Your task to perform on an android device: change the upload size in google photos Image 0: 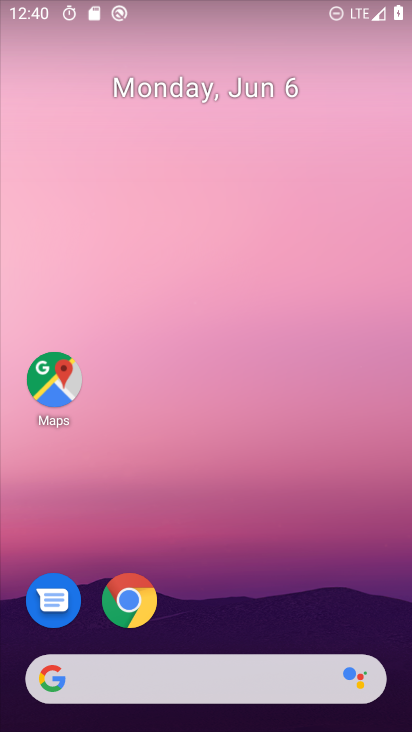
Step 0: drag from (204, 633) to (207, 376)
Your task to perform on an android device: change the upload size in google photos Image 1: 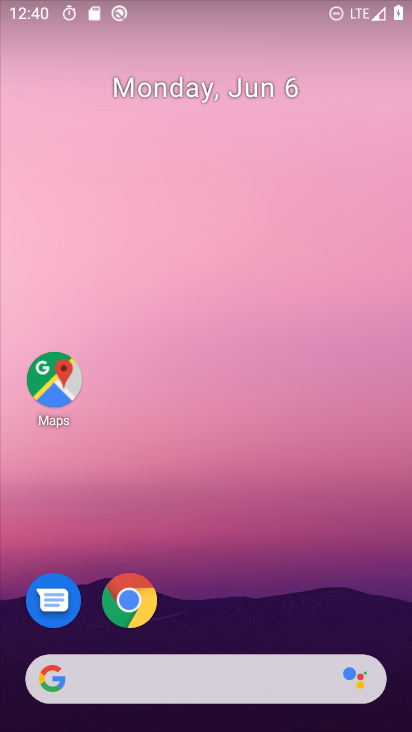
Step 1: drag from (216, 603) to (184, 224)
Your task to perform on an android device: change the upload size in google photos Image 2: 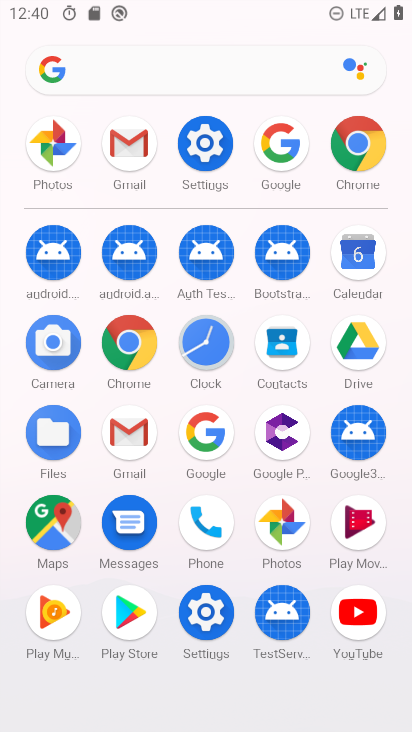
Step 2: click (60, 152)
Your task to perform on an android device: change the upload size in google photos Image 3: 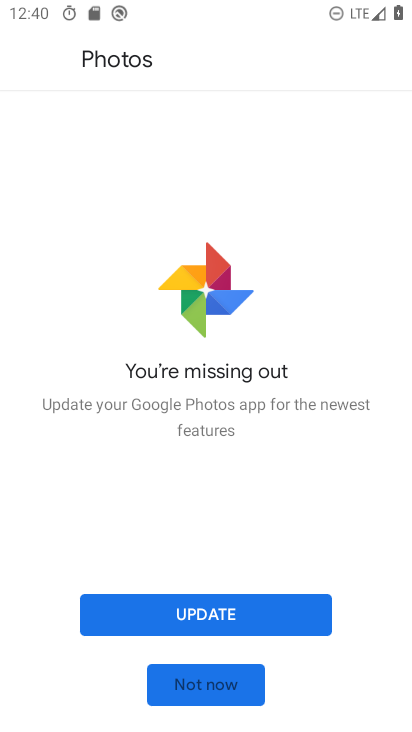
Step 3: click (209, 673)
Your task to perform on an android device: change the upload size in google photos Image 4: 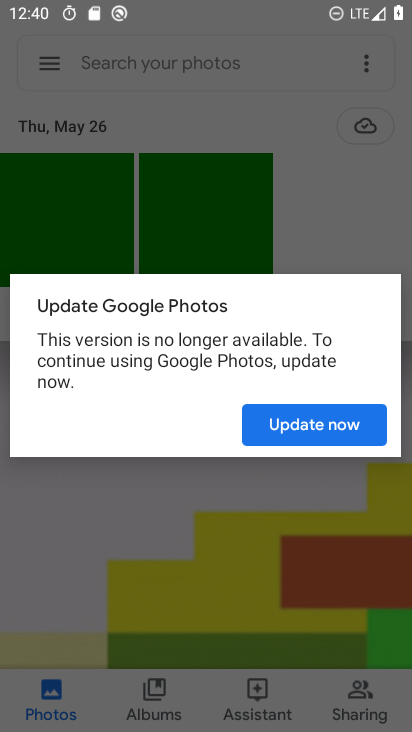
Step 4: click (277, 412)
Your task to perform on an android device: change the upload size in google photos Image 5: 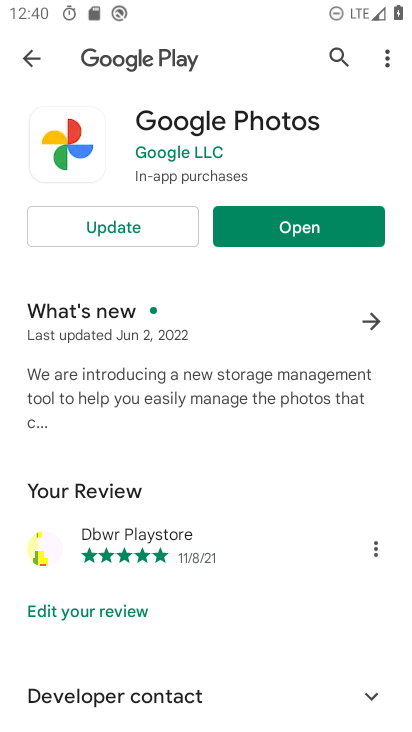
Step 5: click (249, 221)
Your task to perform on an android device: change the upload size in google photos Image 6: 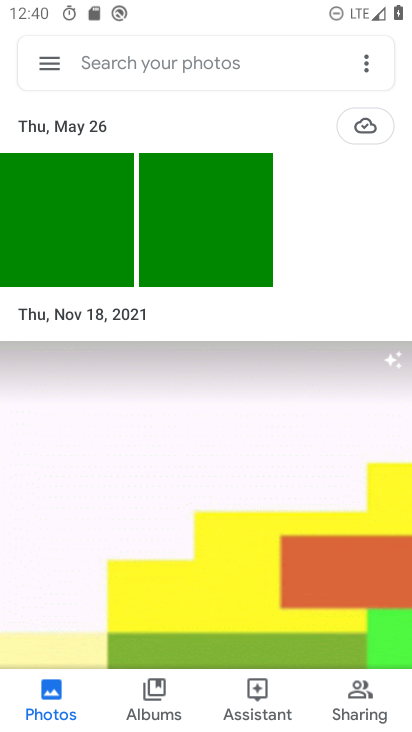
Step 6: click (25, 68)
Your task to perform on an android device: change the upload size in google photos Image 7: 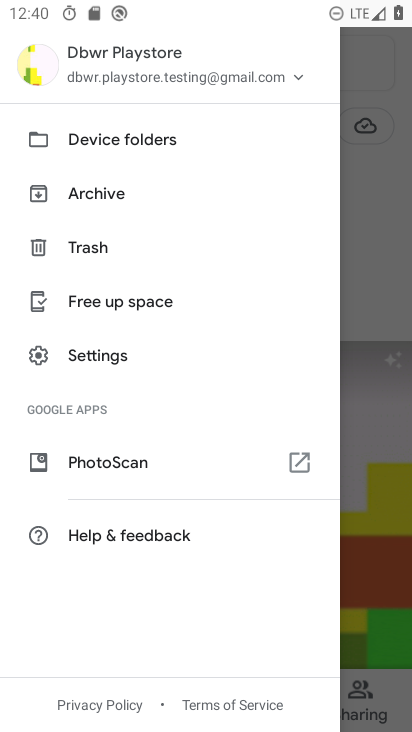
Step 7: click (133, 345)
Your task to perform on an android device: change the upload size in google photos Image 8: 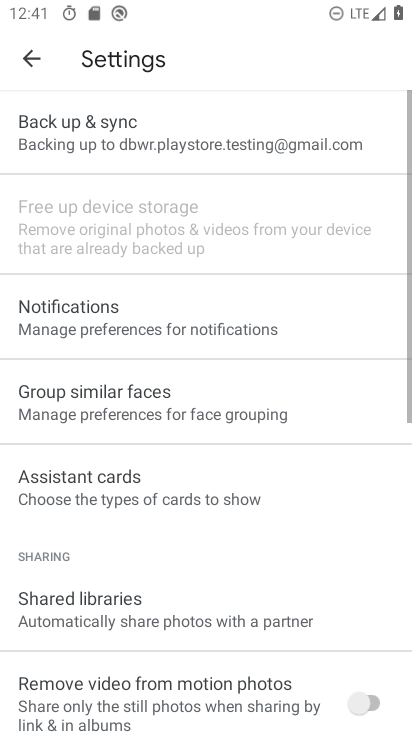
Step 8: click (130, 158)
Your task to perform on an android device: change the upload size in google photos Image 9: 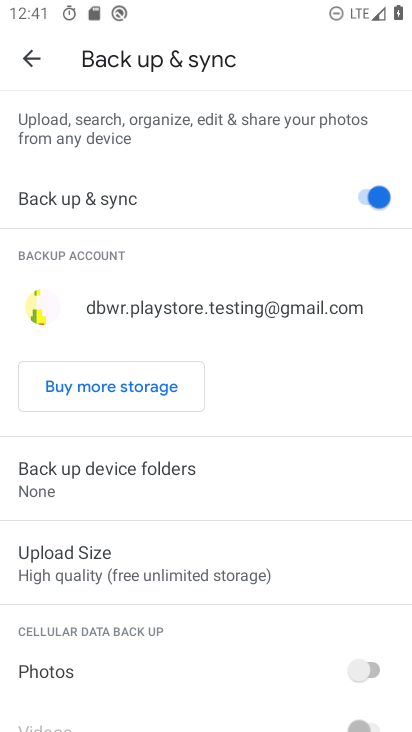
Step 9: click (153, 580)
Your task to perform on an android device: change the upload size in google photos Image 10: 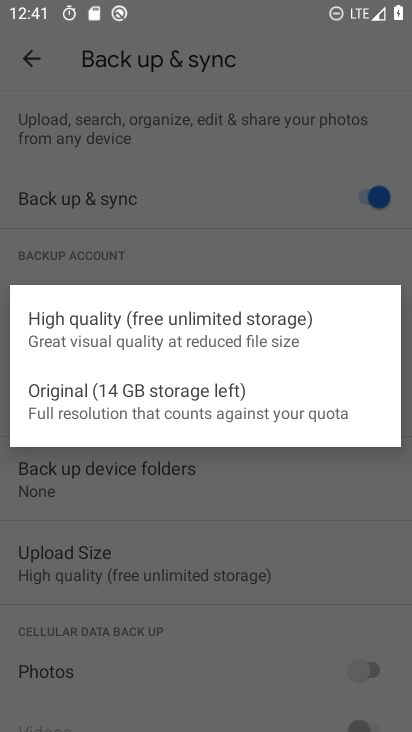
Step 10: click (184, 411)
Your task to perform on an android device: change the upload size in google photos Image 11: 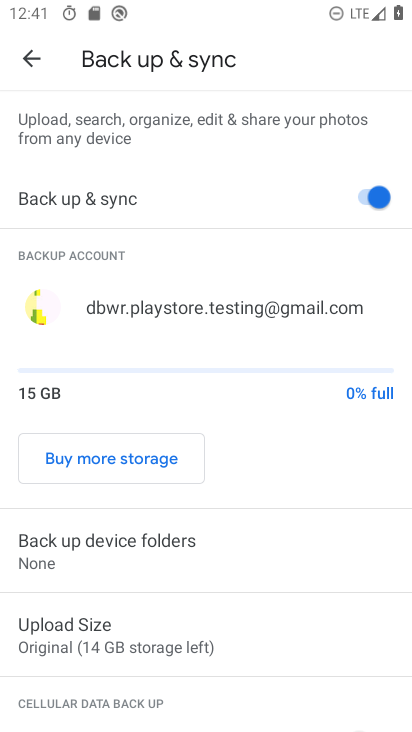
Step 11: task complete